Your task to perform on an android device: uninstall "Spotify: Music and Podcasts" Image 0: 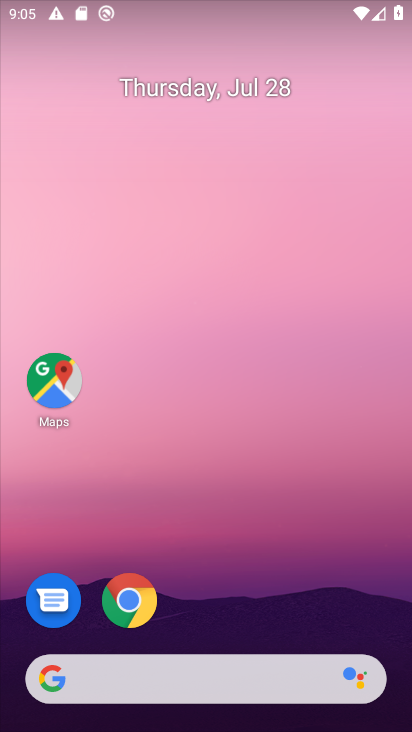
Step 0: drag from (222, 626) to (200, 21)
Your task to perform on an android device: uninstall "Spotify: Music and Podcasts" Image 1: 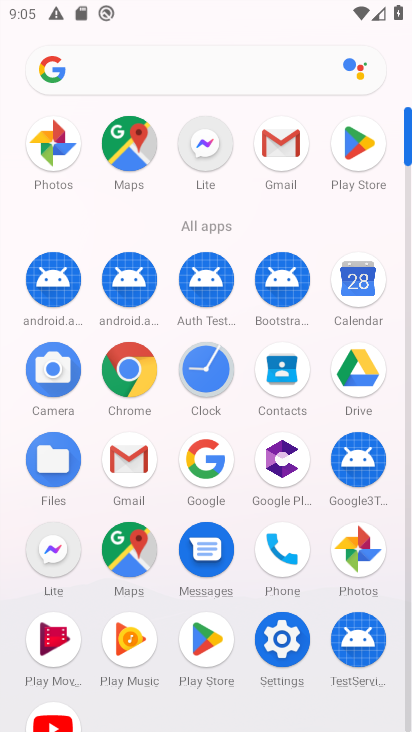
Step 1: click (352, 157)
Your task to perform on an android device: uninstall "Spotify: Music and Podcasts" Image 2: 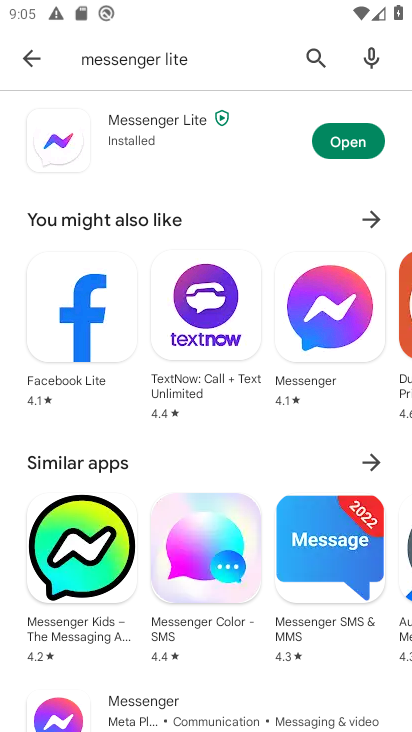
Step 2: click (151, 61)
Your task to perform on an android device: uninstall "Spotify: Music and Podcasts" Image 3: 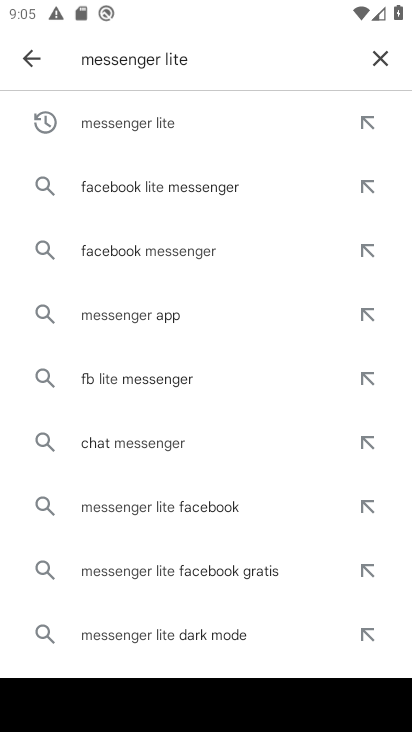
Step 3: click (386, 62)
Your task to perform on an android device: uninstall "Spotify: Music and Podcasts" Image 4: 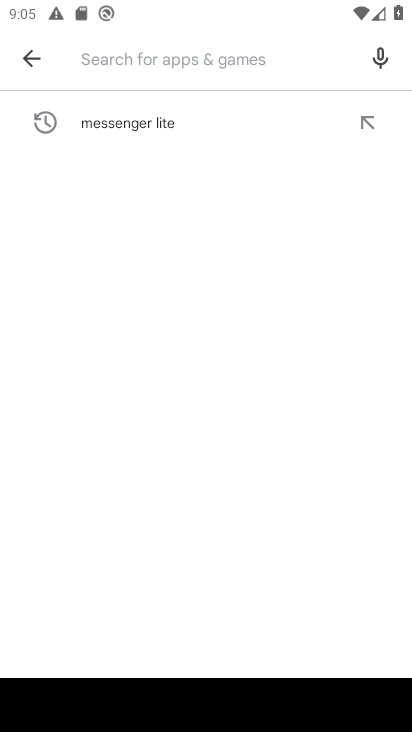
Step 4: click (130, 64)
Your task to perform on an android device: uninstall "Spotify: Music and Podcasts" Image 5: 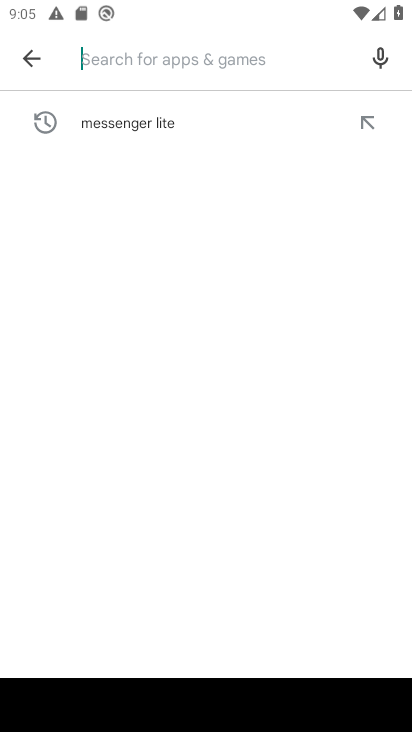
Step 5: type "Spotify: Music and Podcasts"
Your task to perform on an android device: uninstall "Spotify: Music and Podcasts" Image 6: 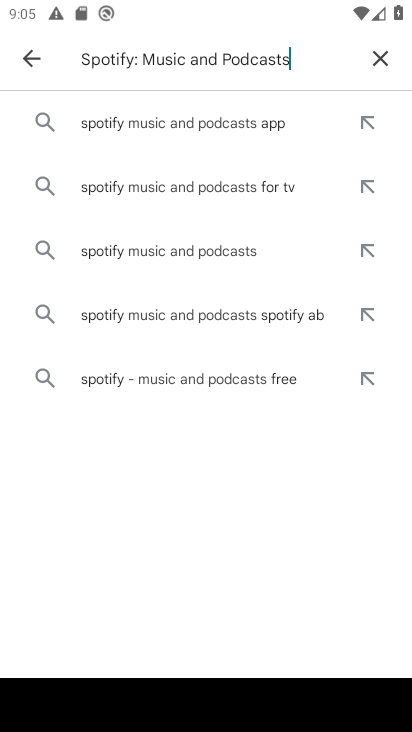
Step 6: click (175, 122)
Your task to perform on an android device: uninstall "Spotify: Music and Podcasts" Image 7: 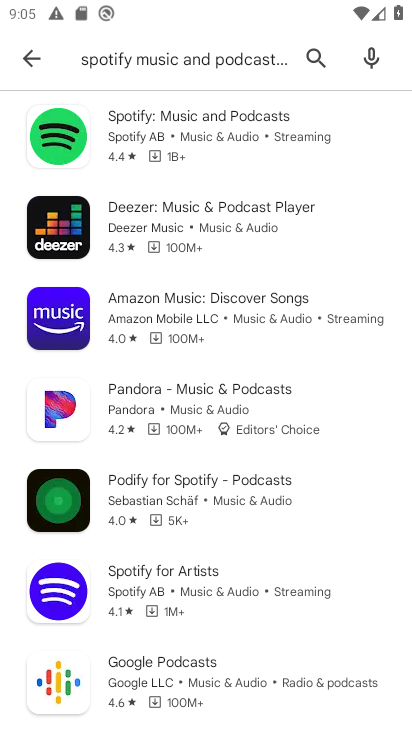
Step 7: click (127, 138)
Your task to perform on an android device: uninstall "Spotify: Music and Podcasts" Image 8: 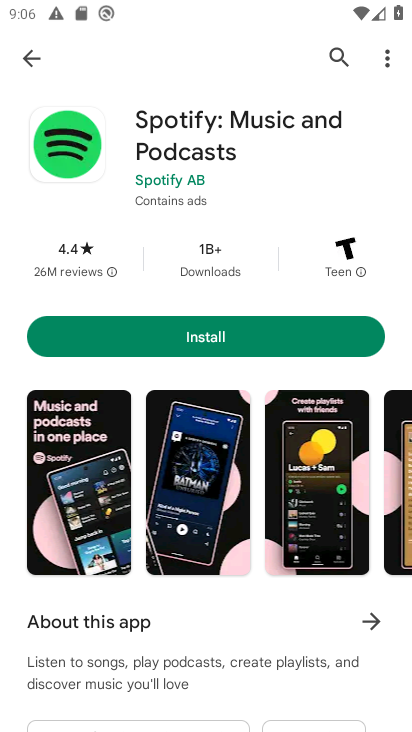
Step 8: task complete